Your task to perform on an android device: Go to Amazon Image 0: 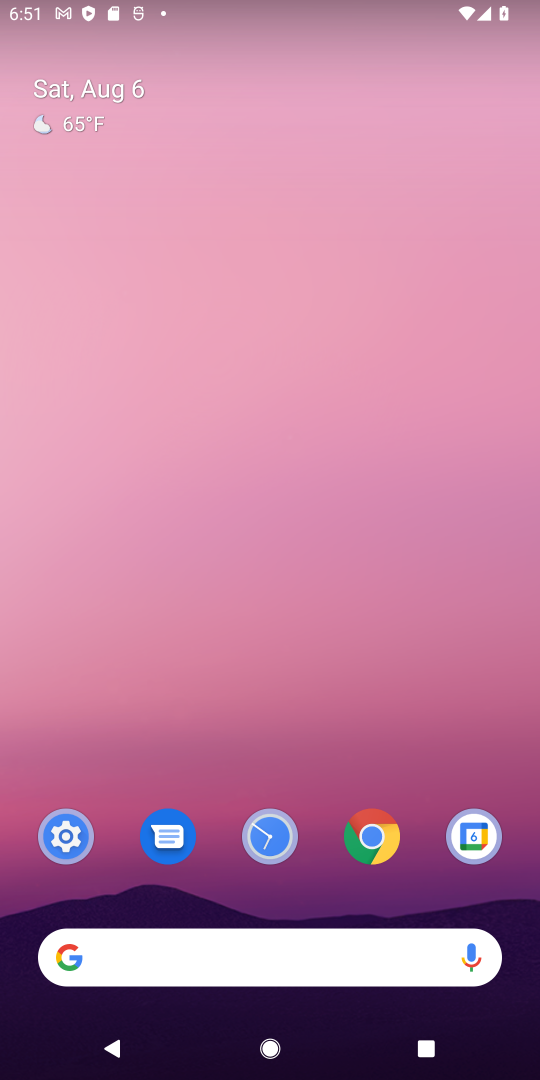
Step 0: drag from (407, 878) to (234, 141)
Your task to perform on an android device: Go to Amazon Image 1: 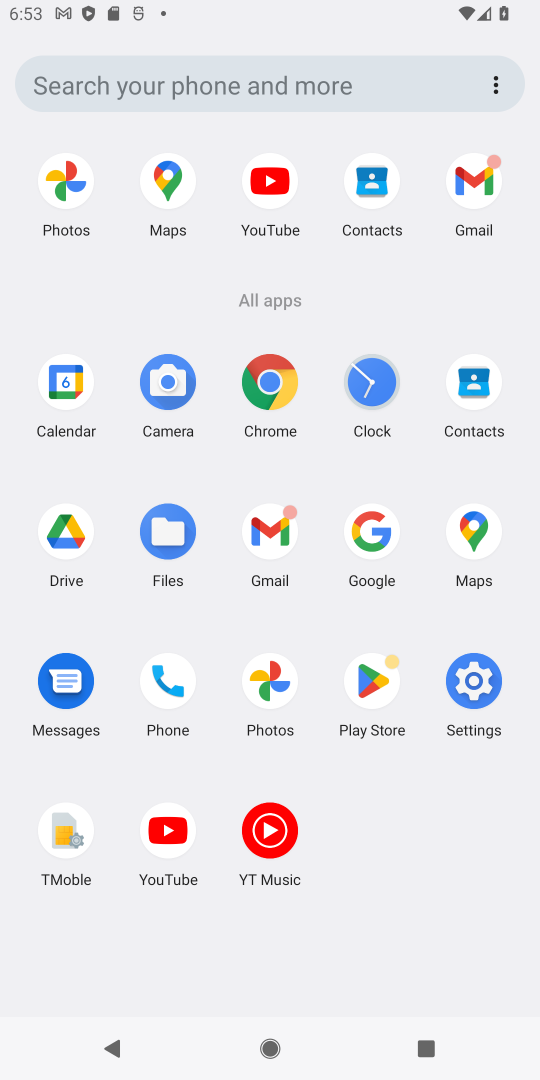
Step 1: click (394, 529)
Your task to perform on an android device: Go to Amazon Image 2: 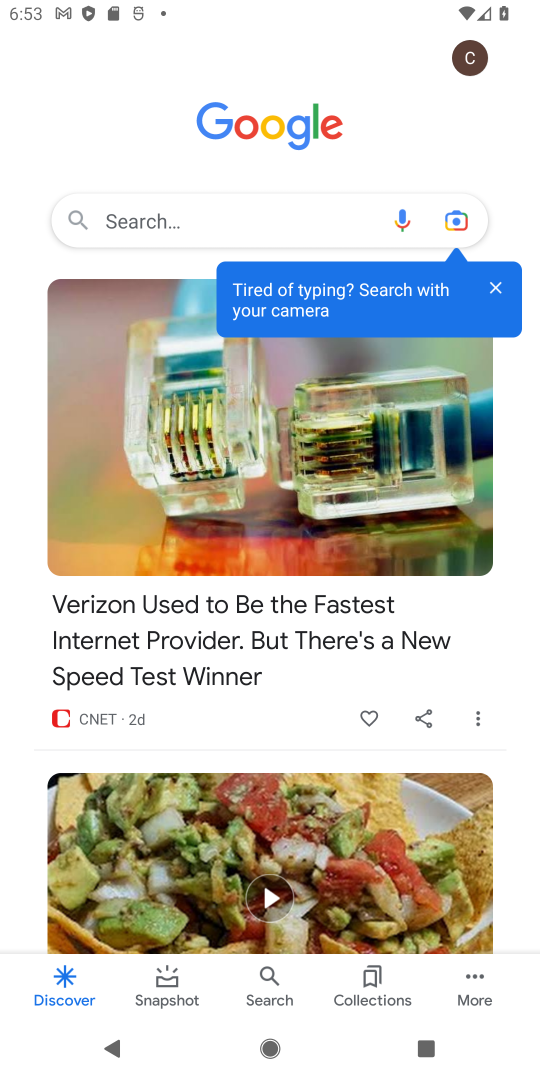
Step 2: click (193, 228)
Your task to perform on an android device: Go to Amazon Image 3: 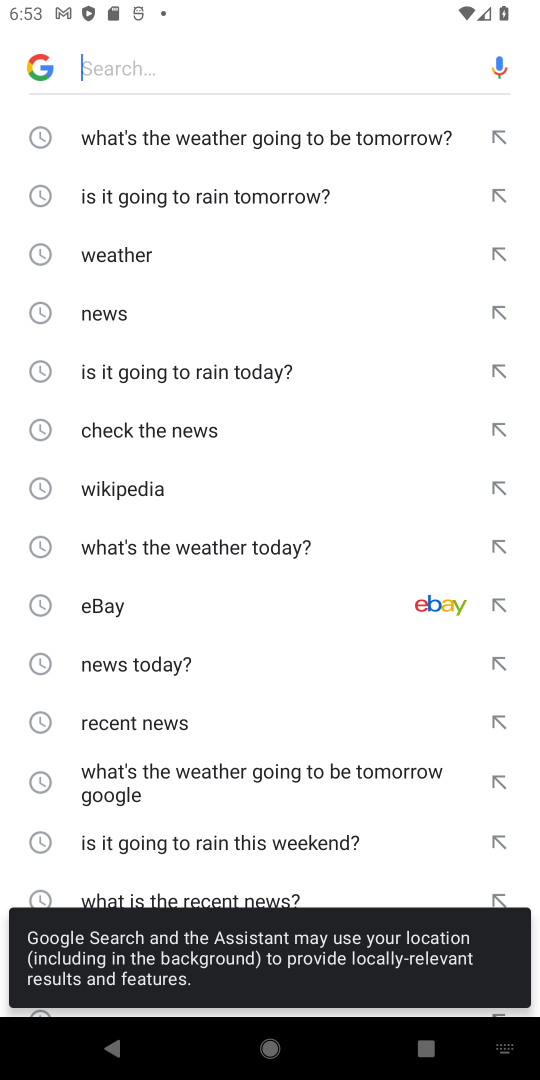
Step 3: drag from (138, 758) to (175, 235)
Your task to perform on an android device: Go to Amazon Image 4: 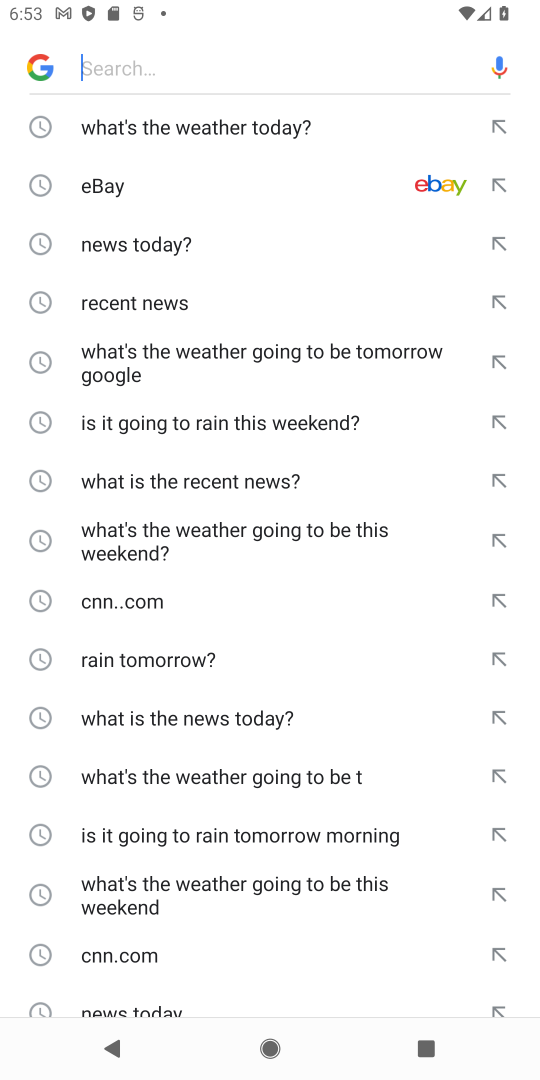
Step 4: drag from (166, 903) to (232, 182)
Your task to perform on an android device: Go to Amazon Image 5: 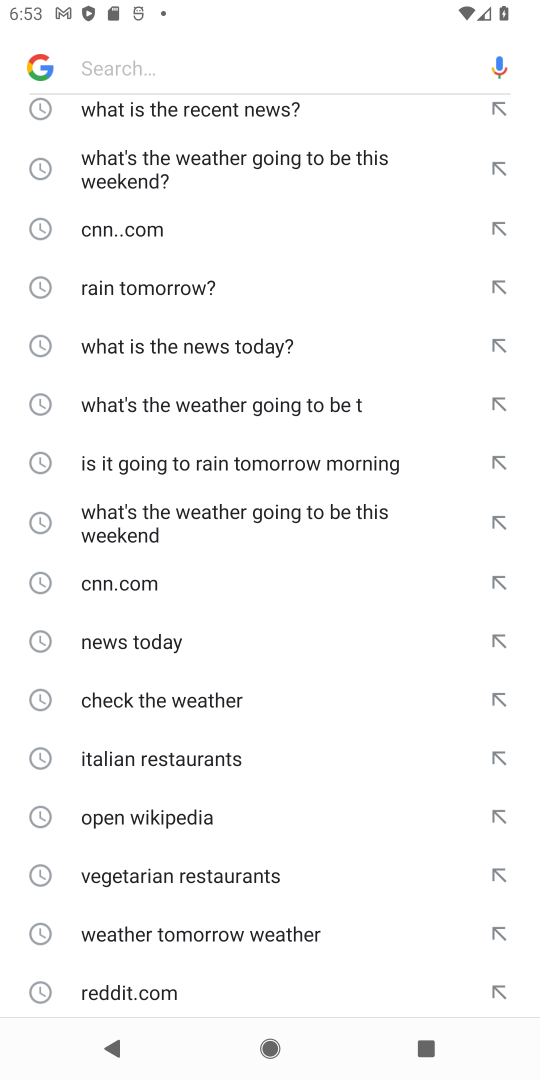
Step 5: type "Amazon"
Your task to perform on an android device: Go to Amazon Image 6: 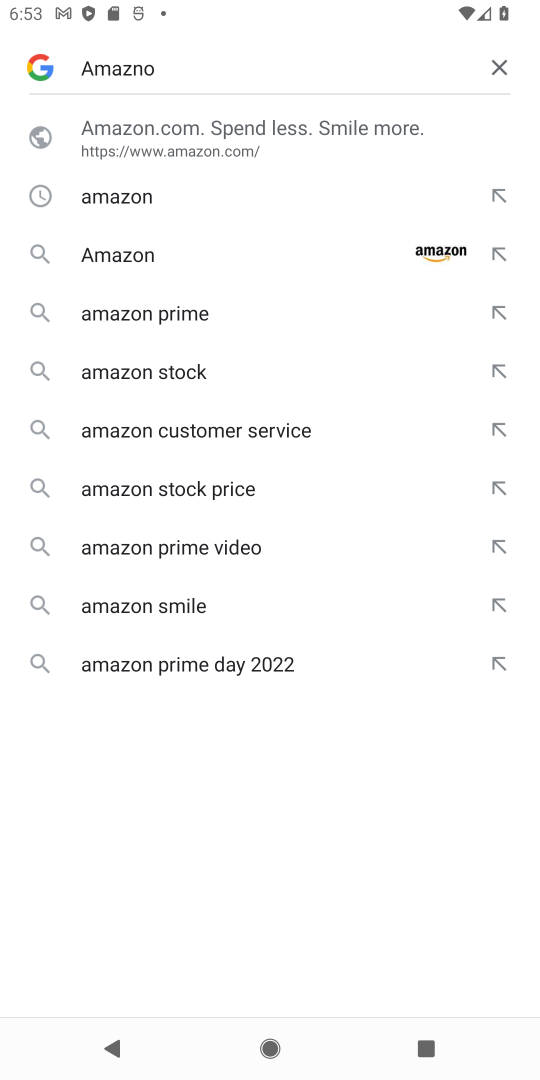
Step 6: click (163, 265)
Your task to perform on an android device: Go to Amazon Image 7: 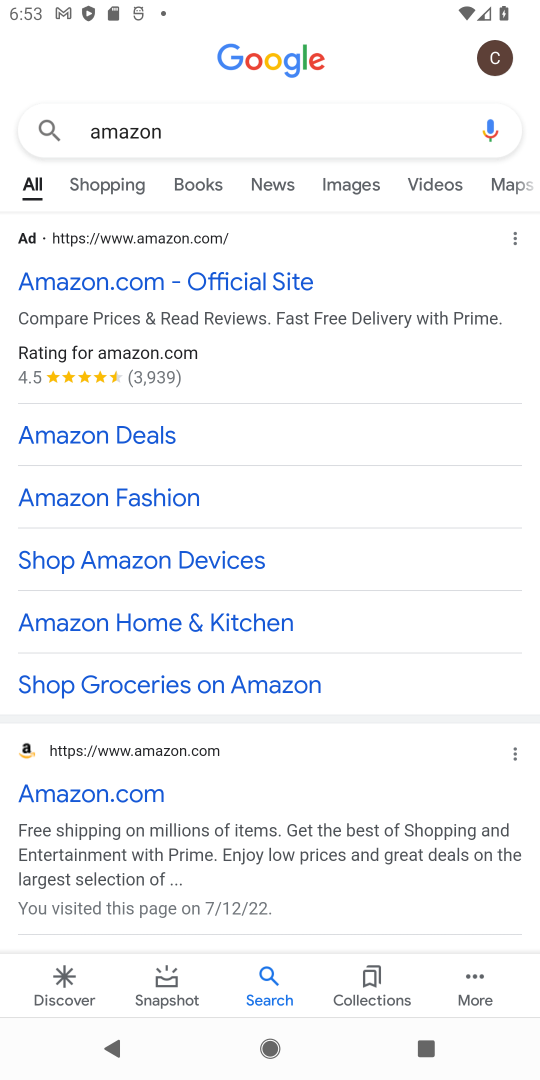
Step 7: task complete